Your task to perform on an android device: turn off improve location accuracy Image 0: 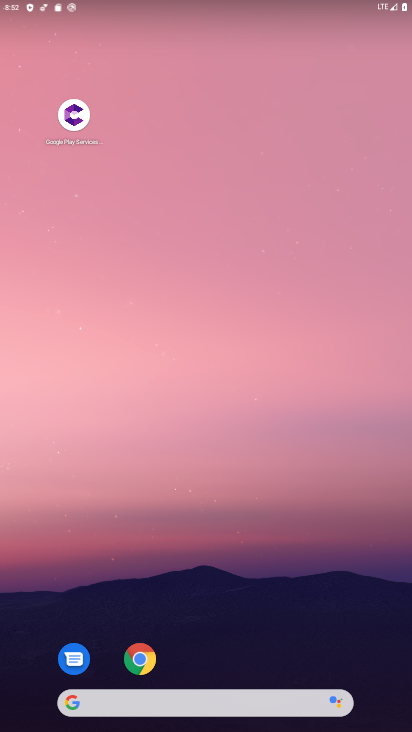
Step 0: drag from (19, 715) to (161, 169)
Your task to perform on an android device: turn off improve location accuracy Image 1: 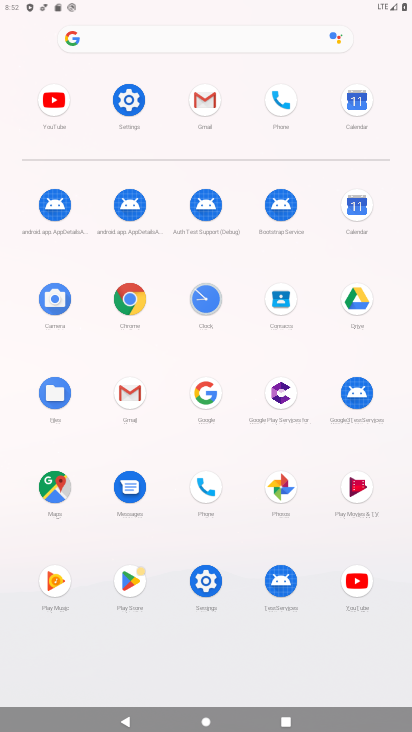
Step 1: click (193, 596)
Your task to perform on an android device: turn off improve location accuracy Image 2: 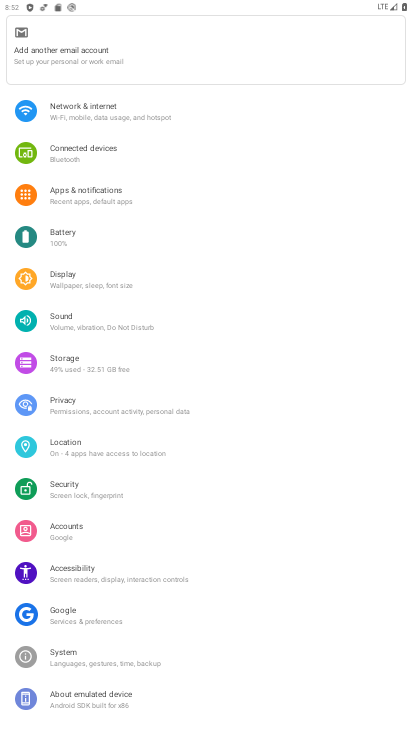
Step 2: click (62, 439)
Your task to perform on an android device: turn off improve location accuracy Image 3: 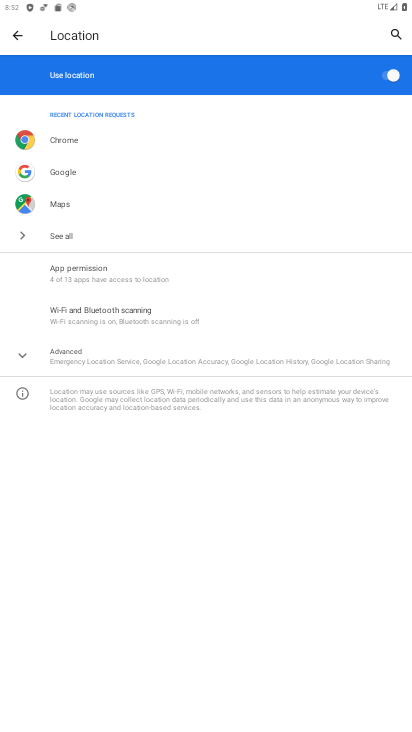
Step 3: click (89, 352)
Your task to perform on an android device: turn off improve location accuracy Image 4: 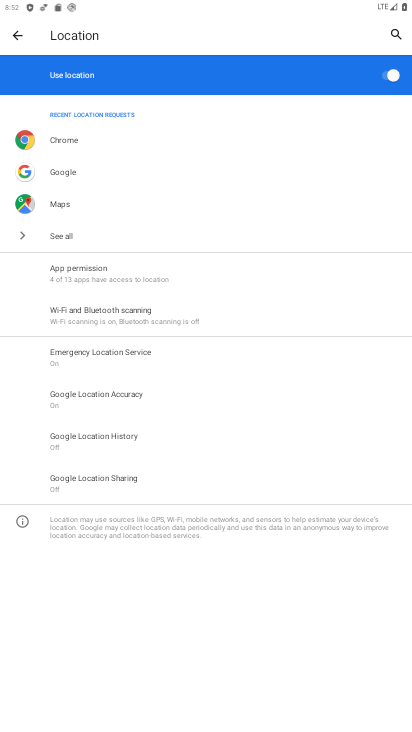
Step 4: click (78, 407)
Your task to perform on an android device: turn off improve location accuracy Image 5: 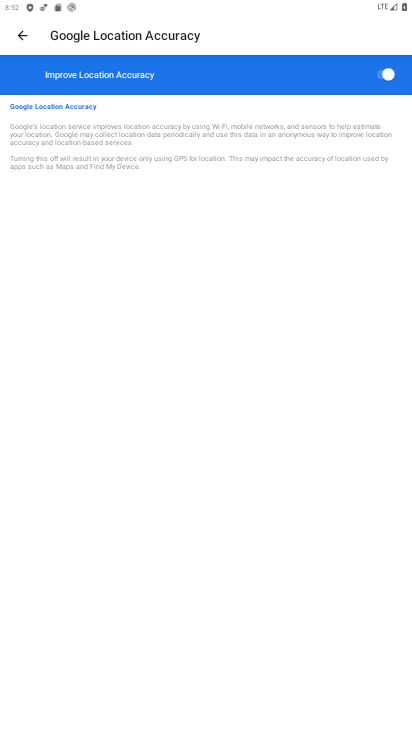
Step 5: click (384, 67)
Your task to perform on an android device: turn off improve location accuracy Image 6: 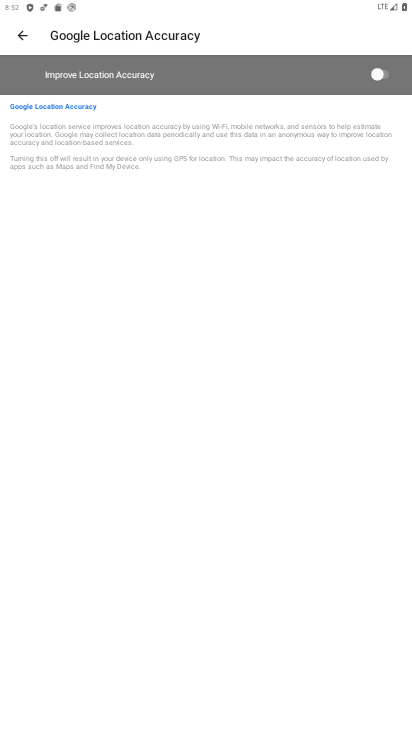
Step 6: task complete